Your task to perform on an android device: find snoozed emails in the gmail app Image 0: 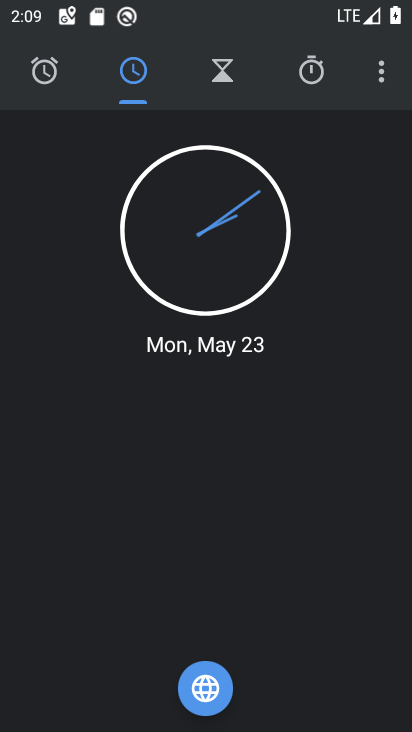
Step 0: press back button
Your task to perform on an android device: find snoozed emails in the gmail app Image 1: 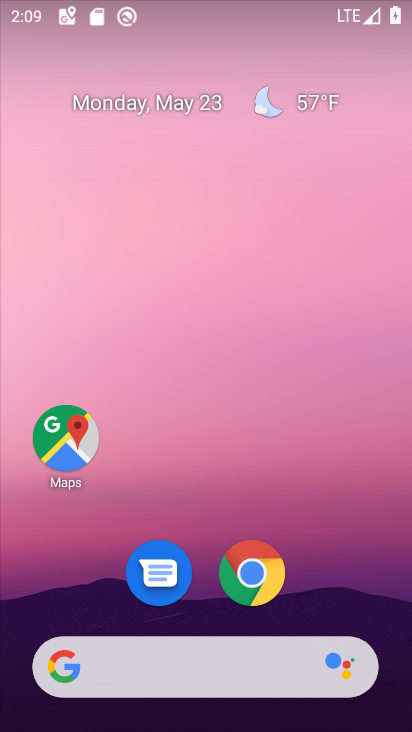
Step 1: drag from (343, 571) to (280, 93)
Your task to perform on an android device: find snoozed emails in the gmail app Image 2: 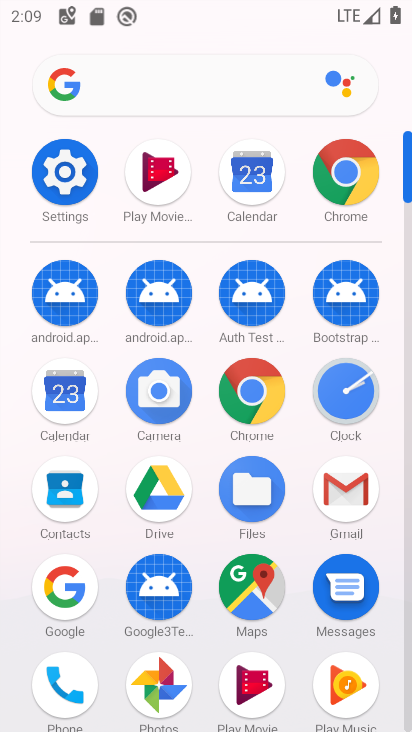
Step 2: click (331, 485)
Your task to perform on an android device: find snoozed emails in the gmail app Image 3: 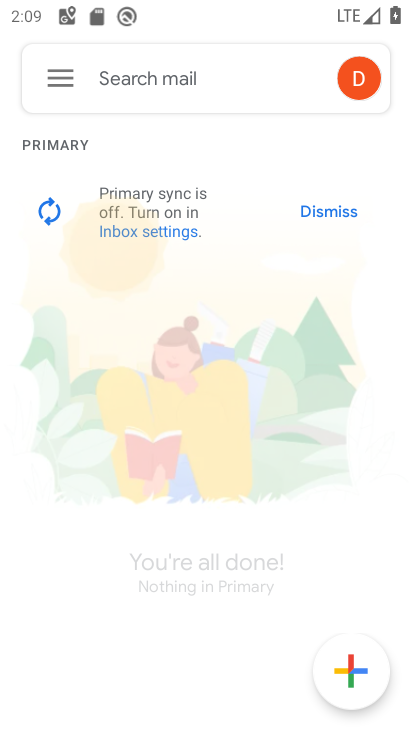
Step 3: click (48, 80)
Your task to perform on an android device: find snoozed emails in the gmail app Image 4: 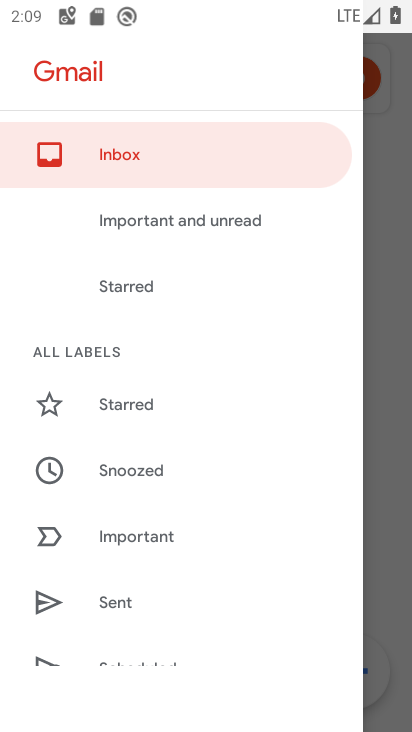
Step 4: click (109, 470)
Your task to perform on an android device: find snoozed emails in the gmail app Image 5: 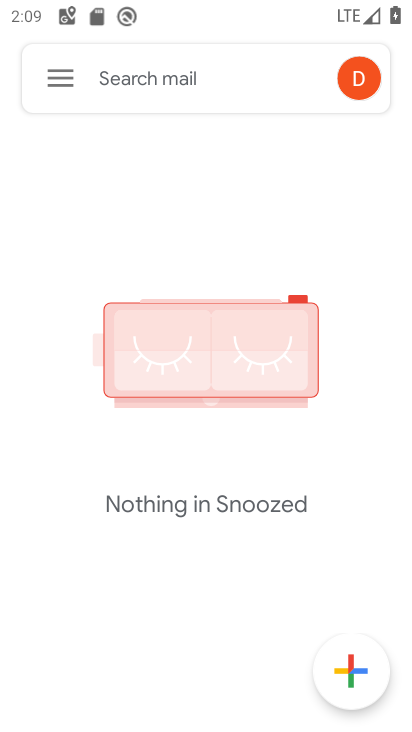
Step 5: task complete